Your task to perform on an android device: turn on data saver in the chrome app Image 0: 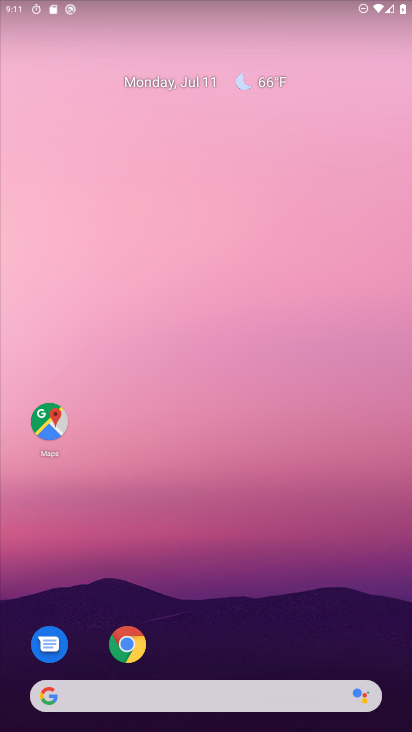
Step 0: drag from (324, 606) to (274, 214)
Your task to perform on an android device: turn on data saver in the chrome app Image 1: 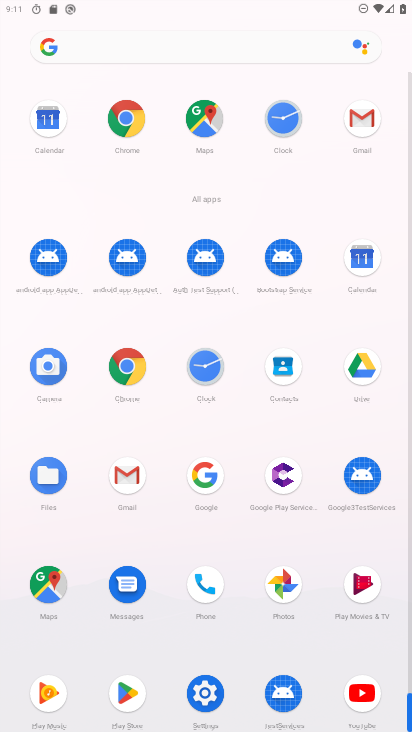
Step 1: click (122, 373)
Your task to perform on an android device: turn on data saver in the chrome app Image 2: 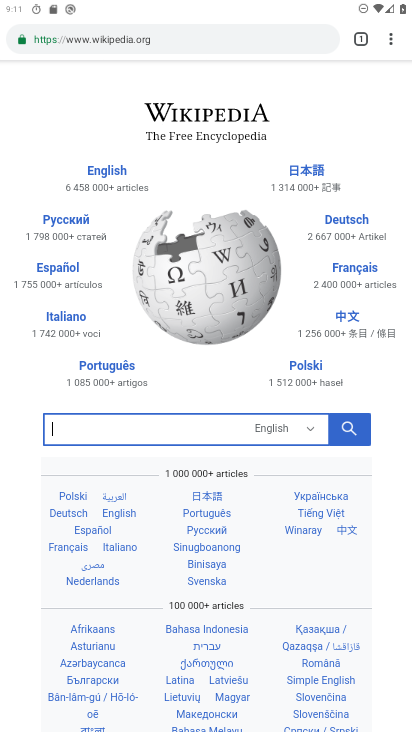
Step 2: click (393, 41)
Your task to perform on an android device: turn on data saver in the chrome app Image 3: 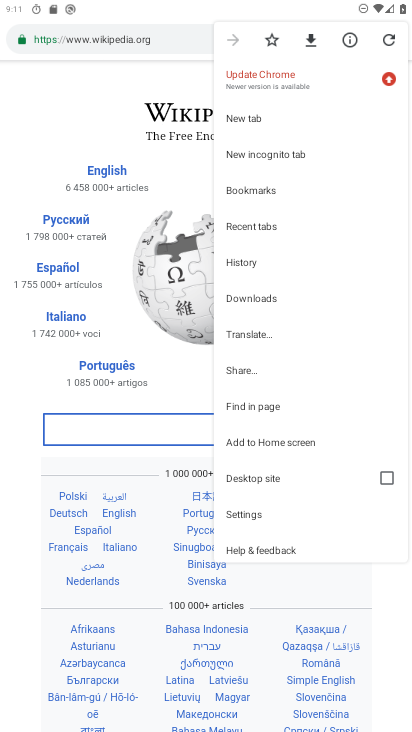
Step 3: click (261, 515)
Your task to perform on an android device: turn on data saver in the chrome app Image 4: 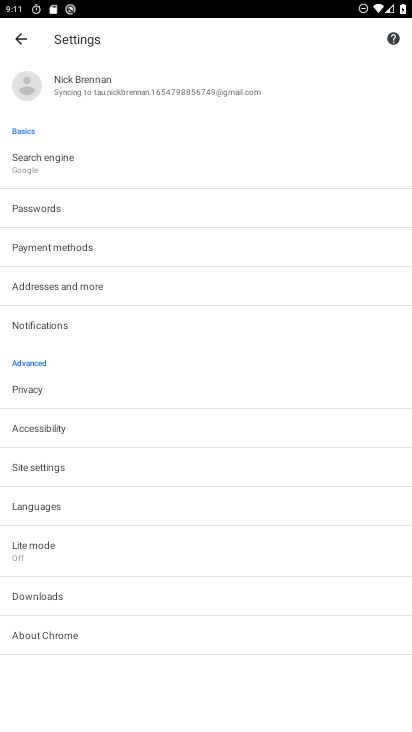
Step 4: click (63, 530)
Your task to perform on an android device: turn on data saver in the chrome app Image 5: 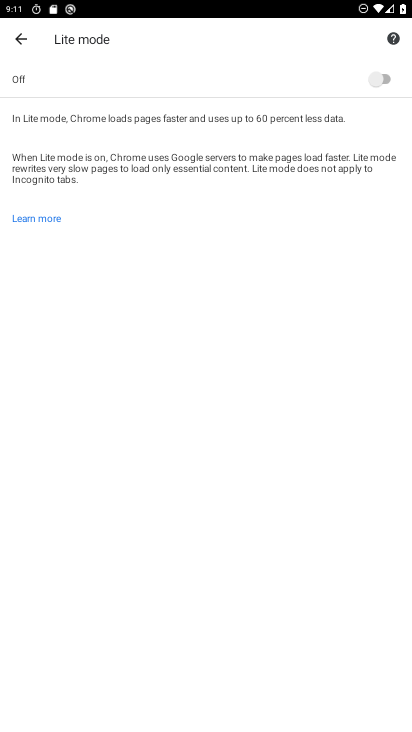
Step 5: click (391, 82)
Your task to perform on an android device: turn on data saver in the chrome app Image 6: 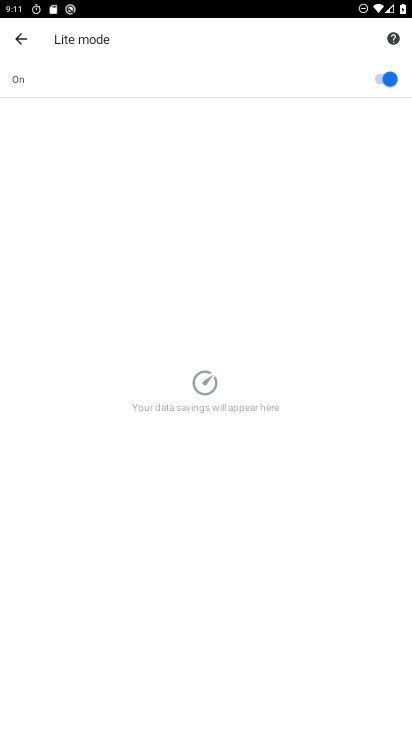
Step 6: task complete